Your task to perform on an android device: Install the Lyft app Image 0: 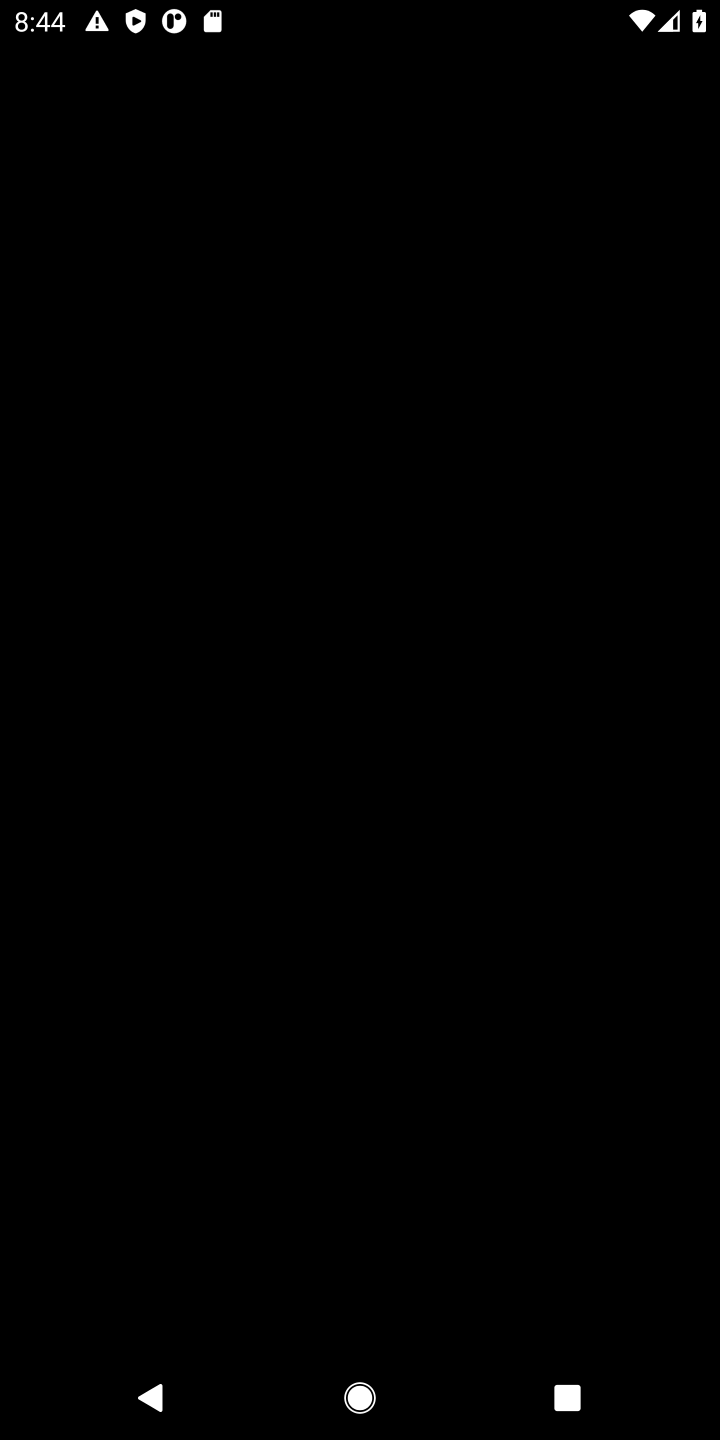
Step 0: press home button
Your task to perform on an android device: Install the Lyft app Image 1: 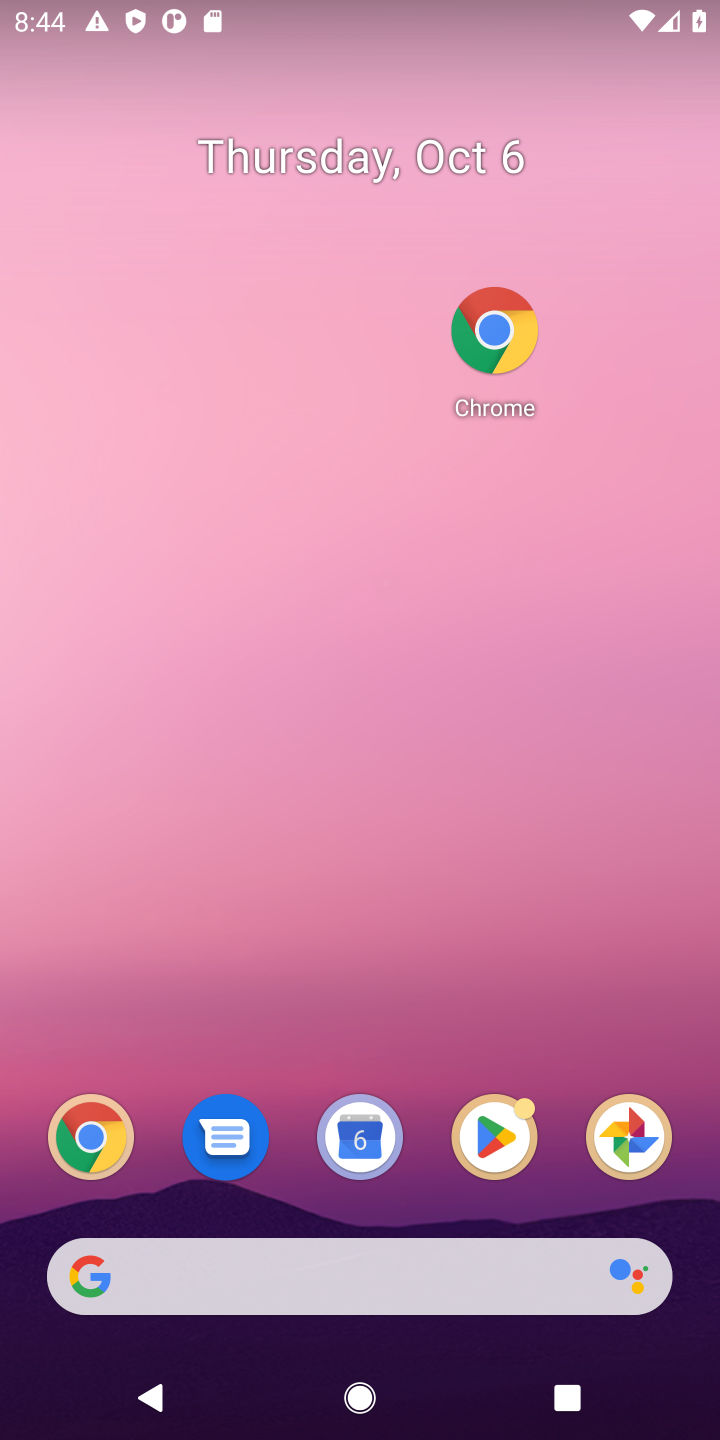
Step 1: click (497, 1153)
Your task to perform on an android device: Install the Lyft app Image 2: 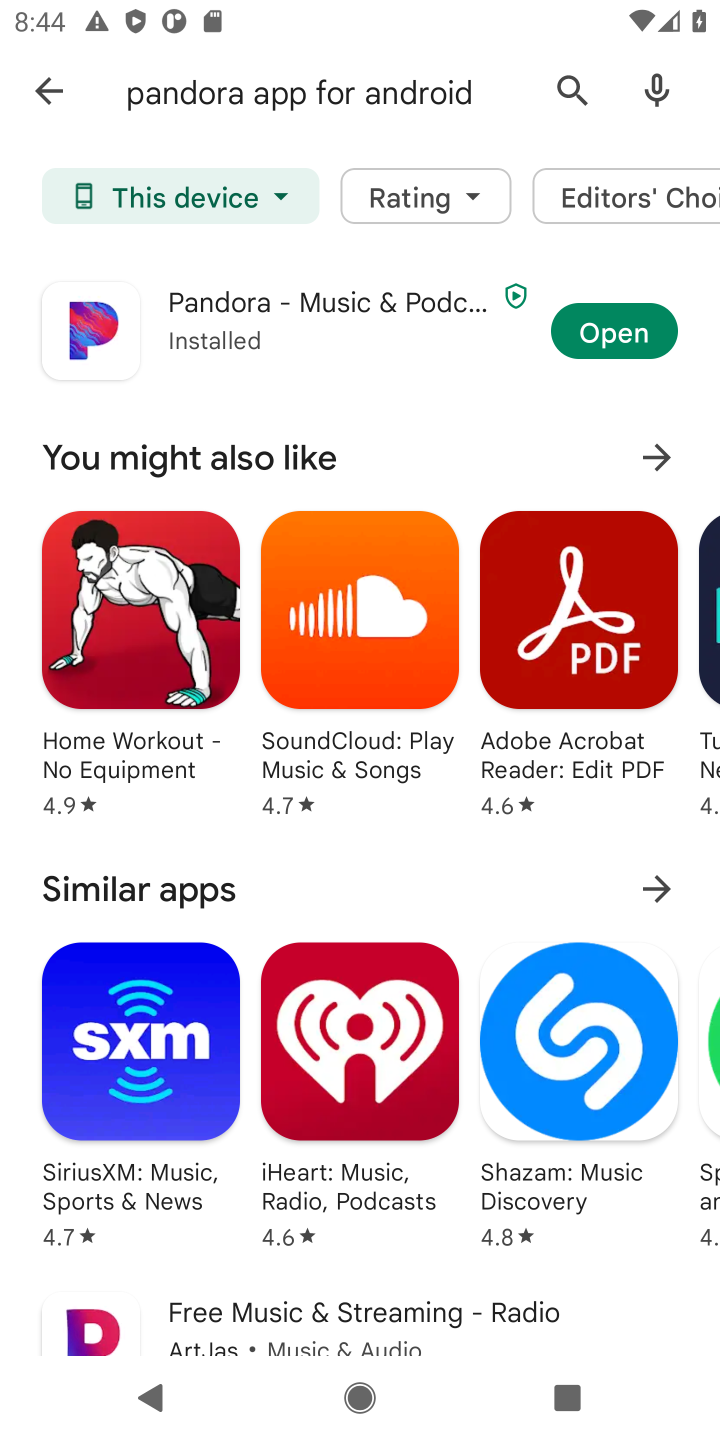
Step 2: click (555, 87)
Your task to perform on an android device: Install the Lyft app Image 3: 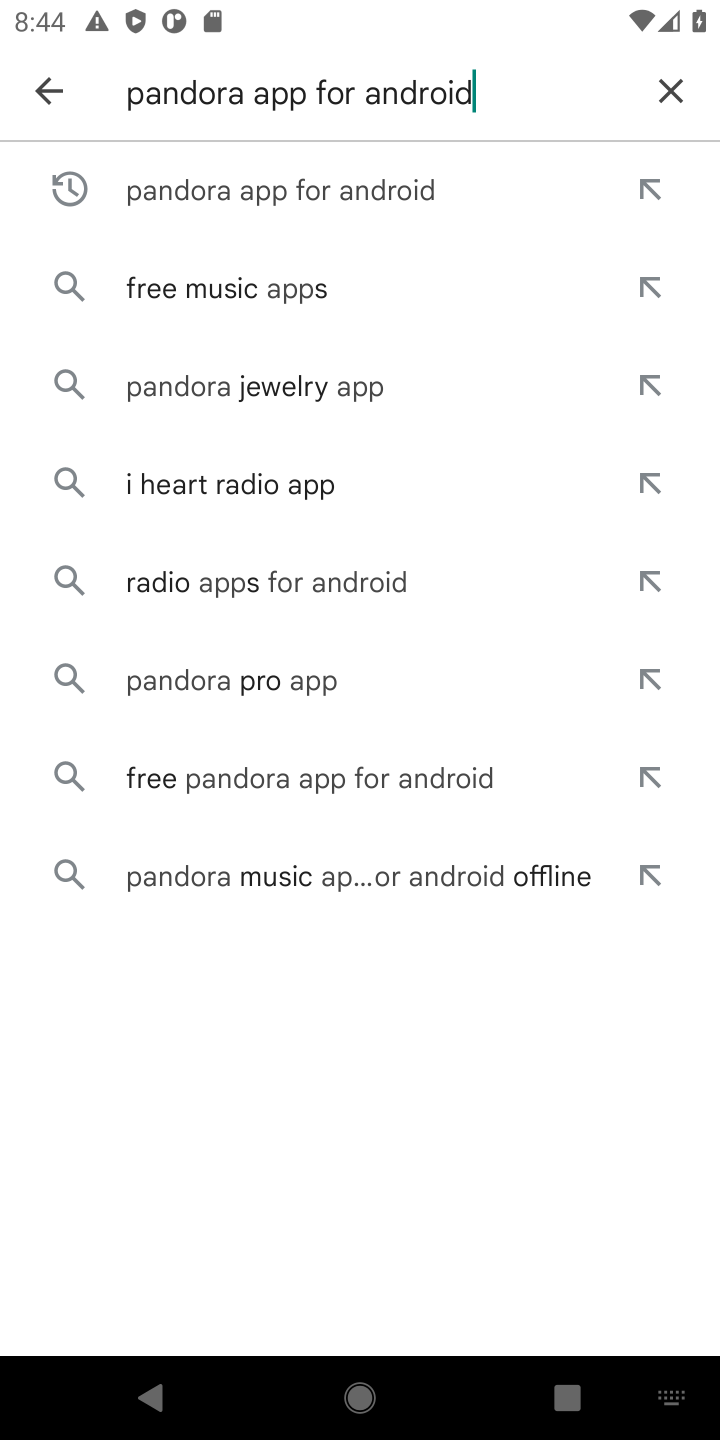
Step 3: click (660, 98)
Your task to perform on an android device: Install the Lyft app Image 4: 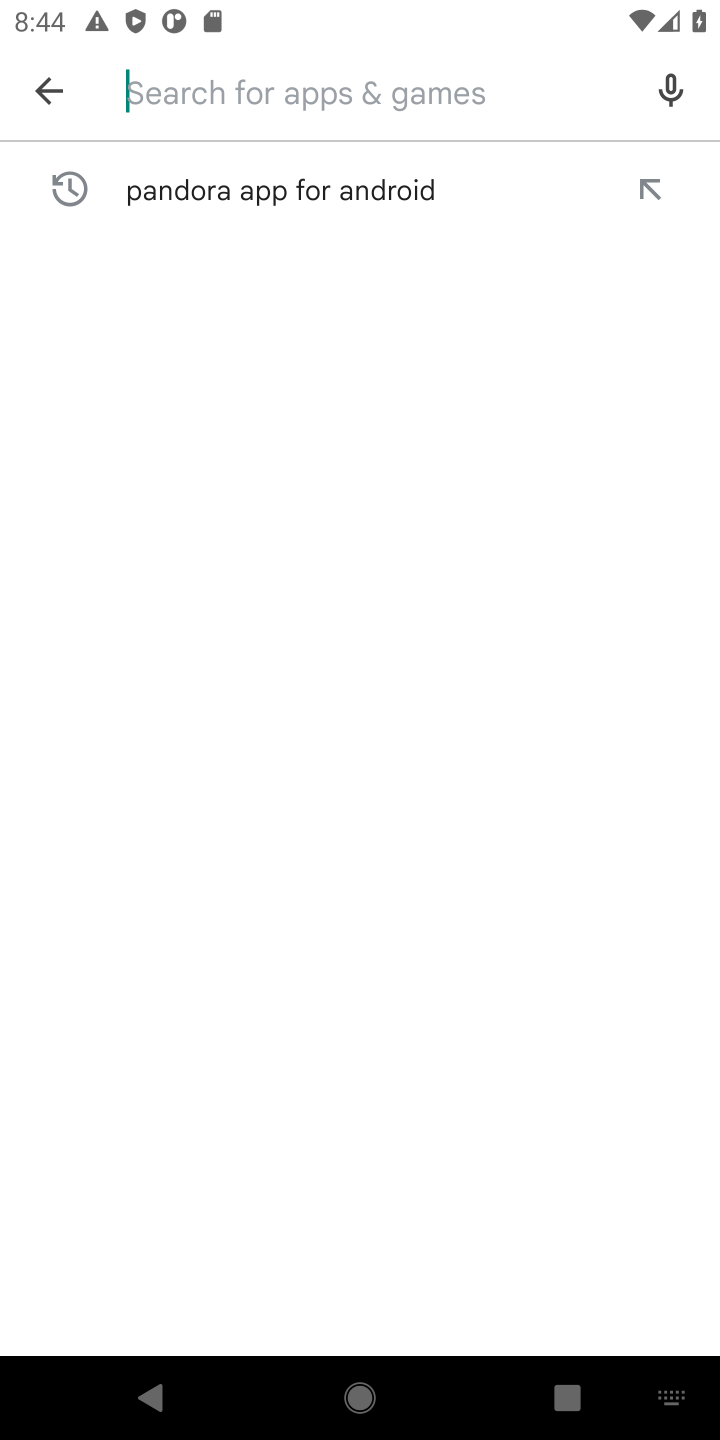
Step 4: type "lyft app"
Your task to perform on an android device: Install the Lyft app Image 5: 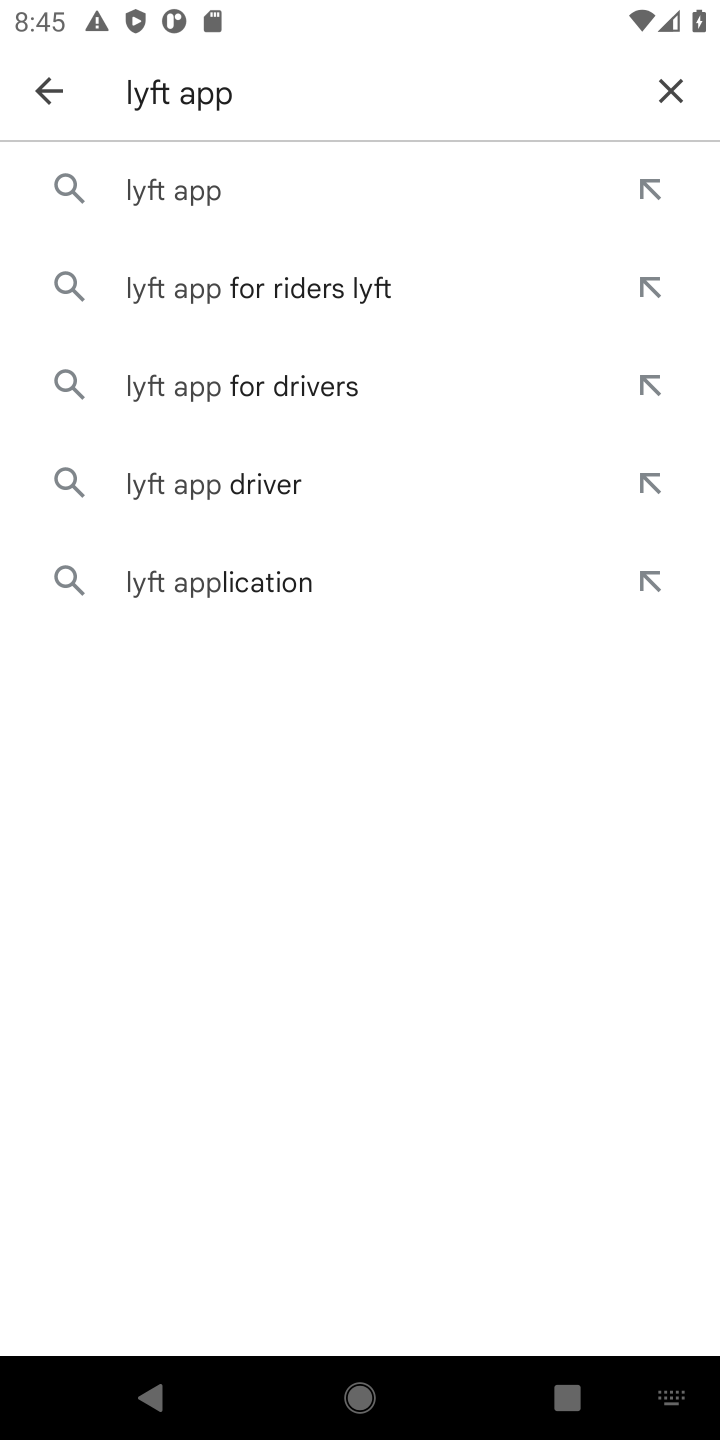
Step 5: click (157, 203)
Your task to perform on an android device: Install the Lyft app Image 6: 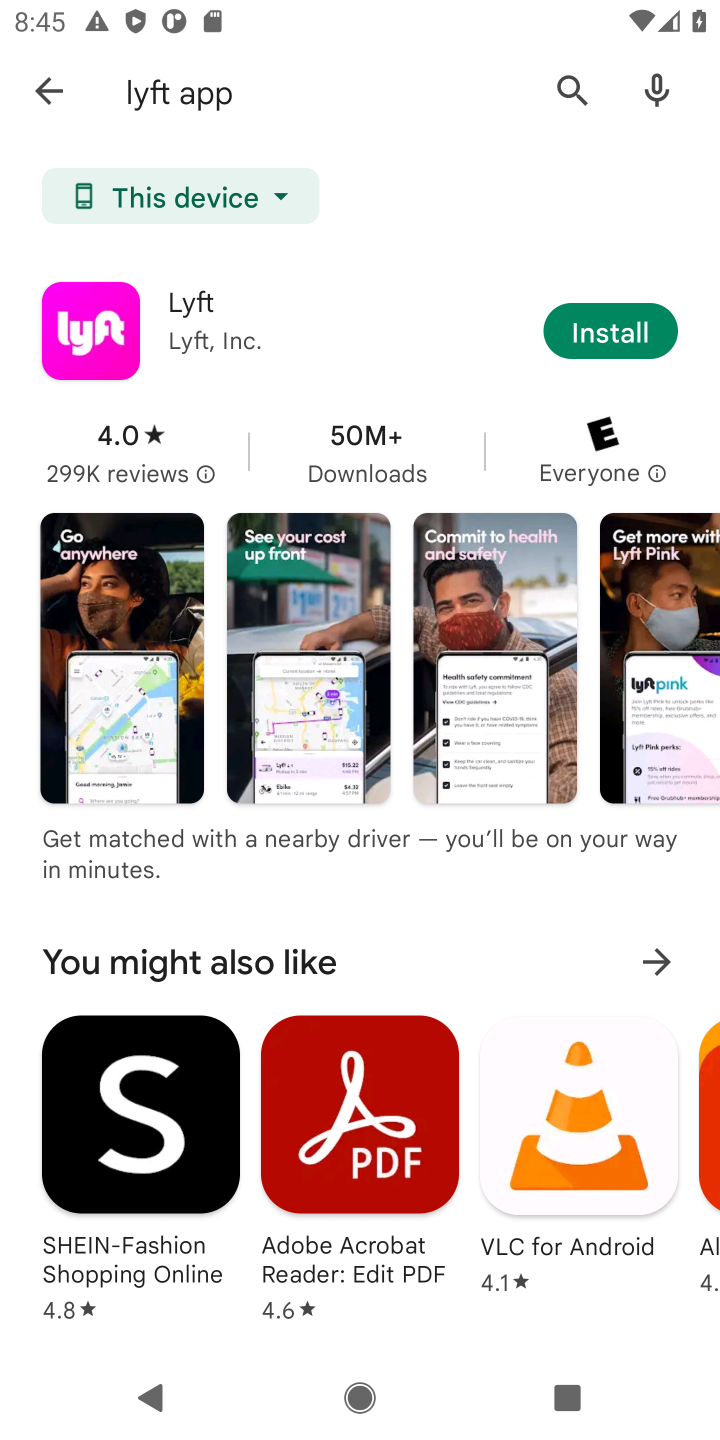
Step 6: click (592, 336)
Your task to perform on an android device: Install the Lyft app Image 7: 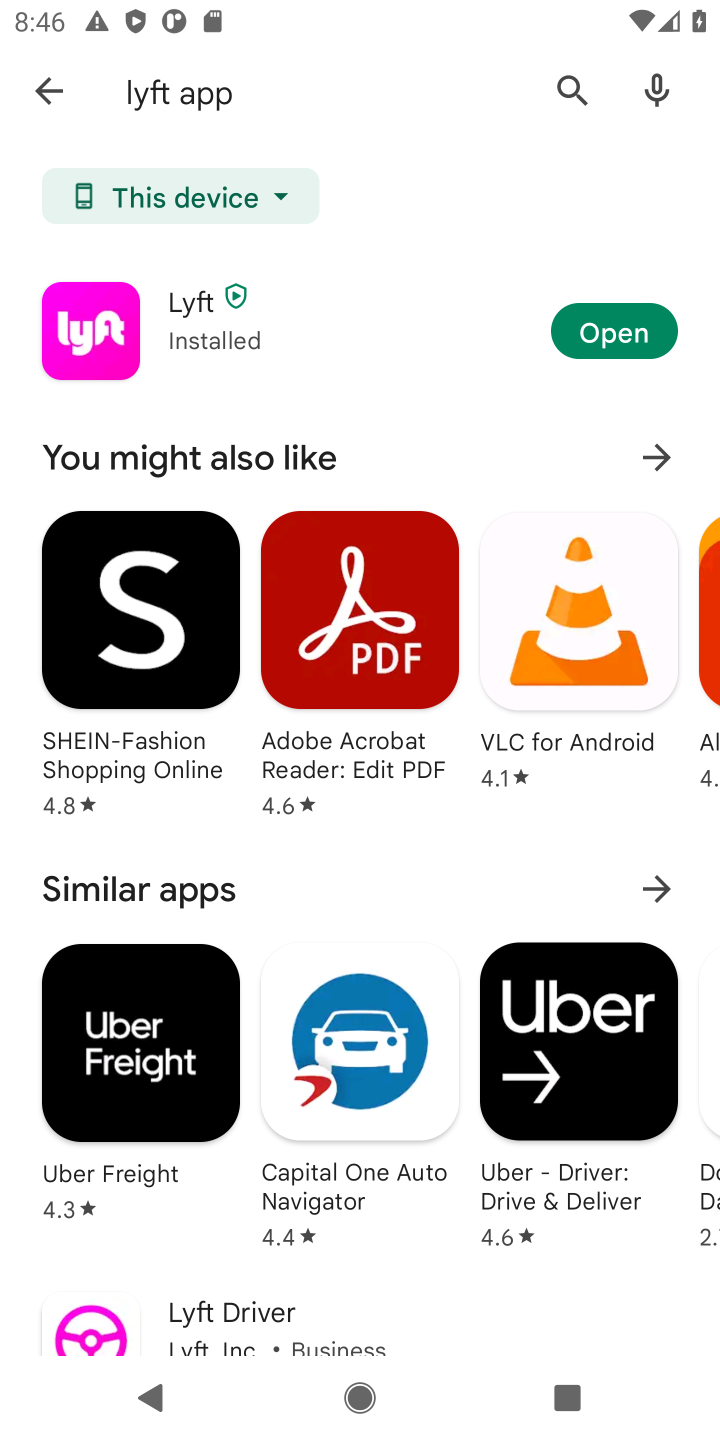
Step 7: task complete